Your task to perform on an android device: Open the web browser Image 0: 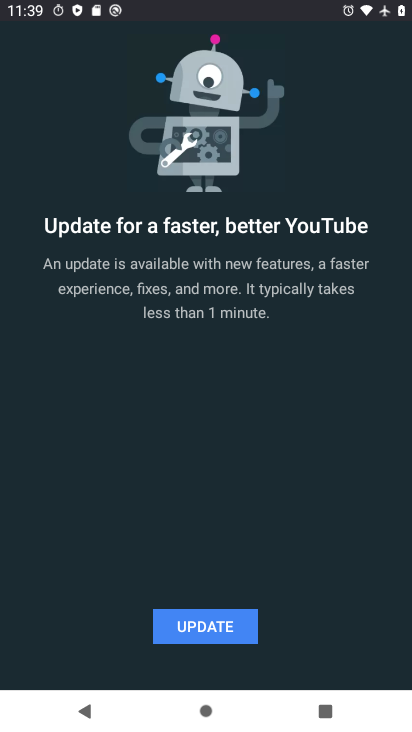
Step 0: press home button
Your task to perform on an android device: Open the web browser Image 1: 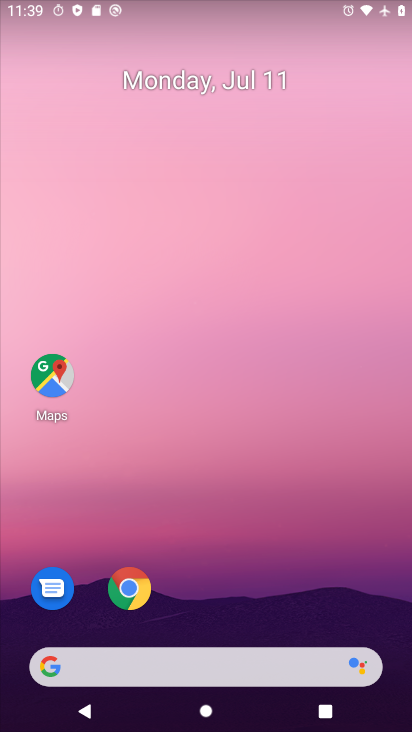
Step 1: click (128, 580)
Your task to perform on an android device: Open the web browser Image 2: 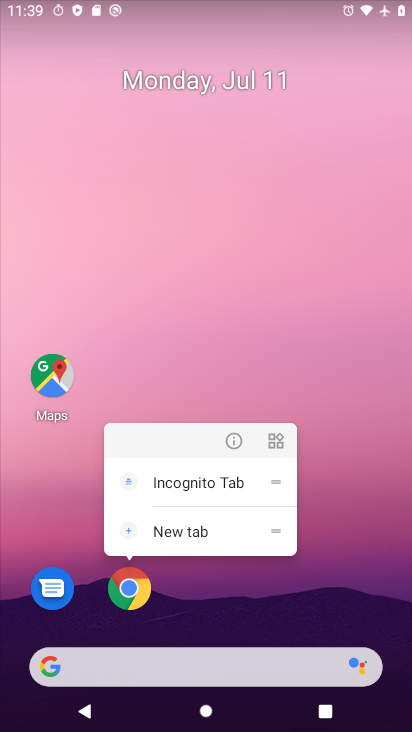
Step 2: click (122, 595)
Your task to perform on an android device: Open the web browser Image 3: 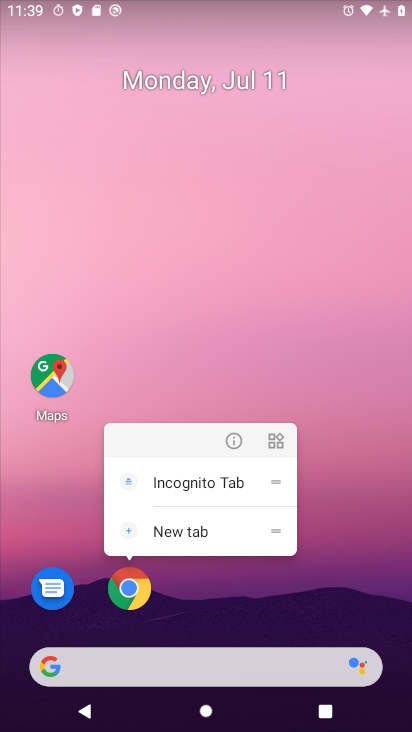
Step 3: click (129, 594)
Your task to perform on an android device: Open the web browser Image 4: 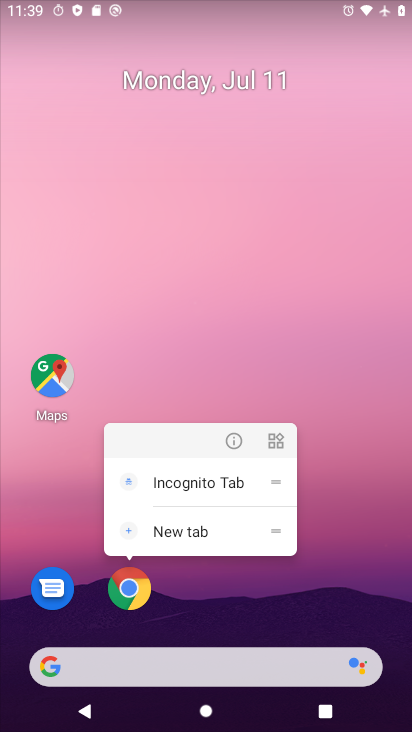
Step 4: click (129, 594)
Your task to perform on an android device: Open the web browser Image 5: 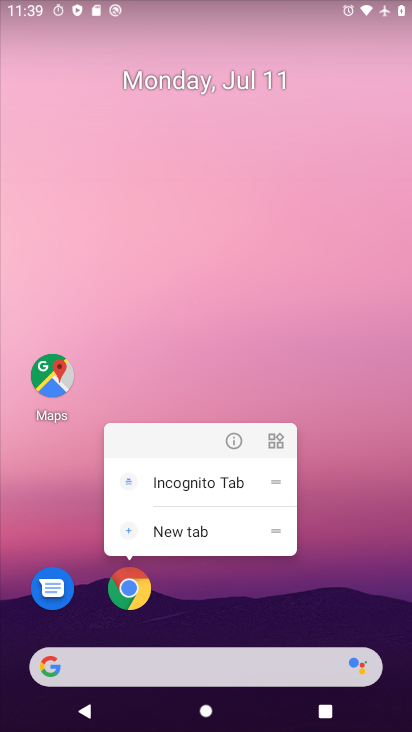
Step 5: click (133, 590)
Your task to perform on an android device: Open the web browser Image 6: 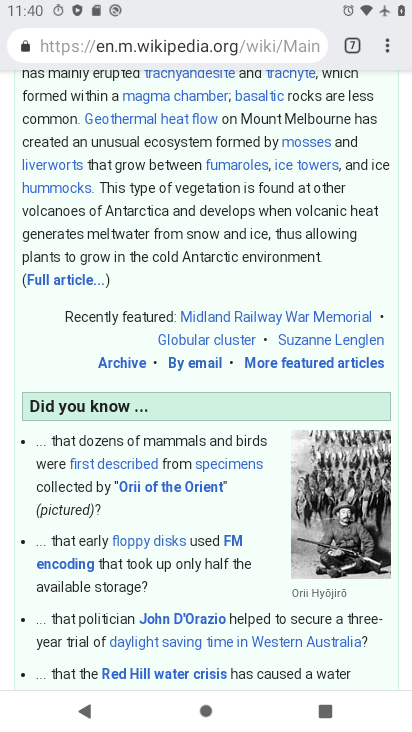
Step 6: task complete